Your task to perform on an android device: uninstall "Spotify" Image 0: 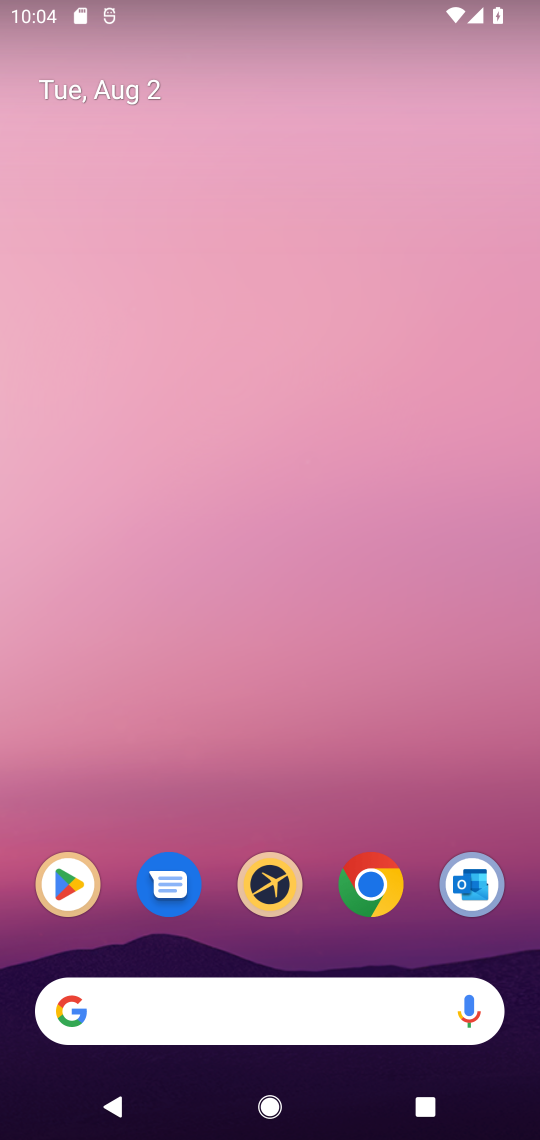
Step 0: click (58, 904)
Your task to perform on an android device: uninstall "Spotify" Image 1: 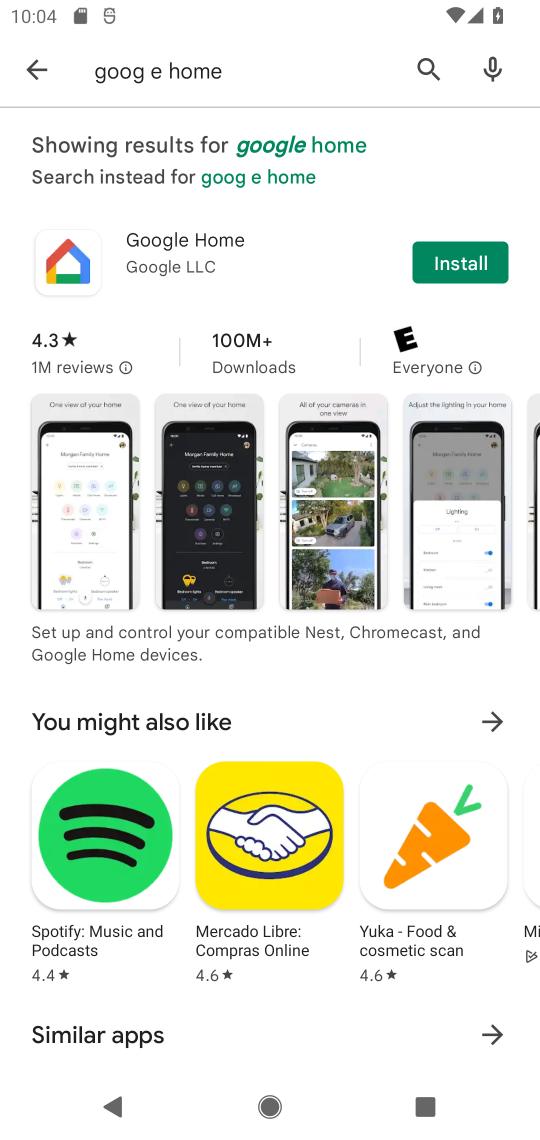
Step 1: click (209, 71)
Your task to perform on an android device: uninstall "Spotify" Image 2: 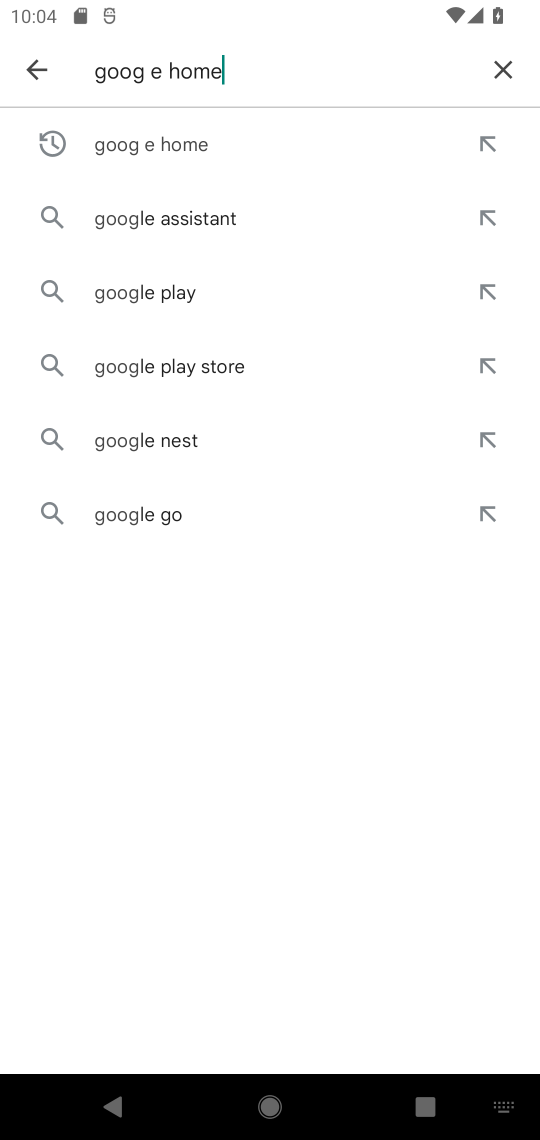
Step 2: click (501, 64)
Your task to perform on an android device: uninstall "Spotify" Image 3: 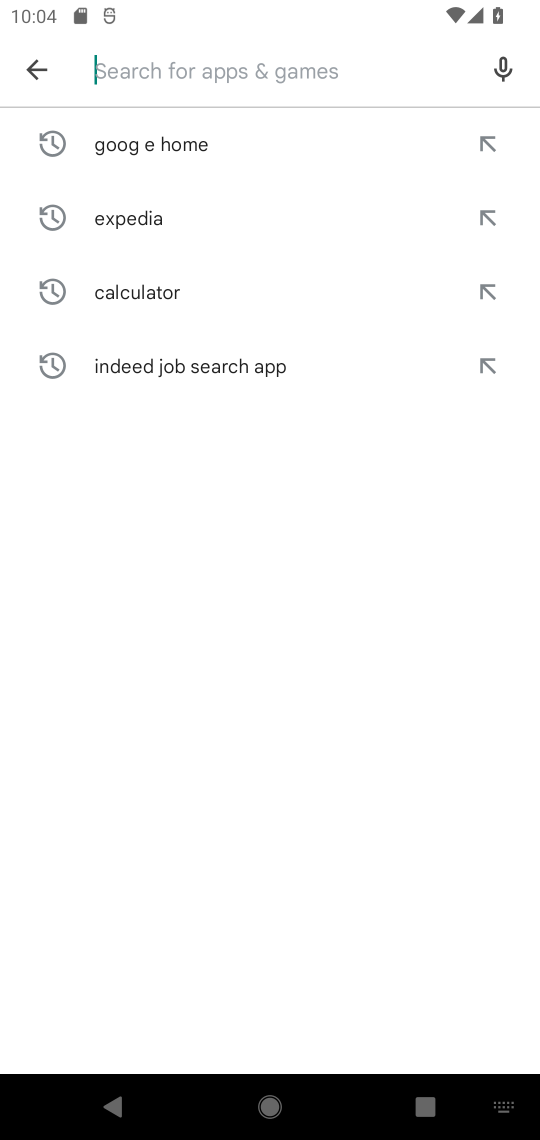
Step 3: type "spotify"
Your task to perform on an android device: uninstall "Spotify" Image 4: 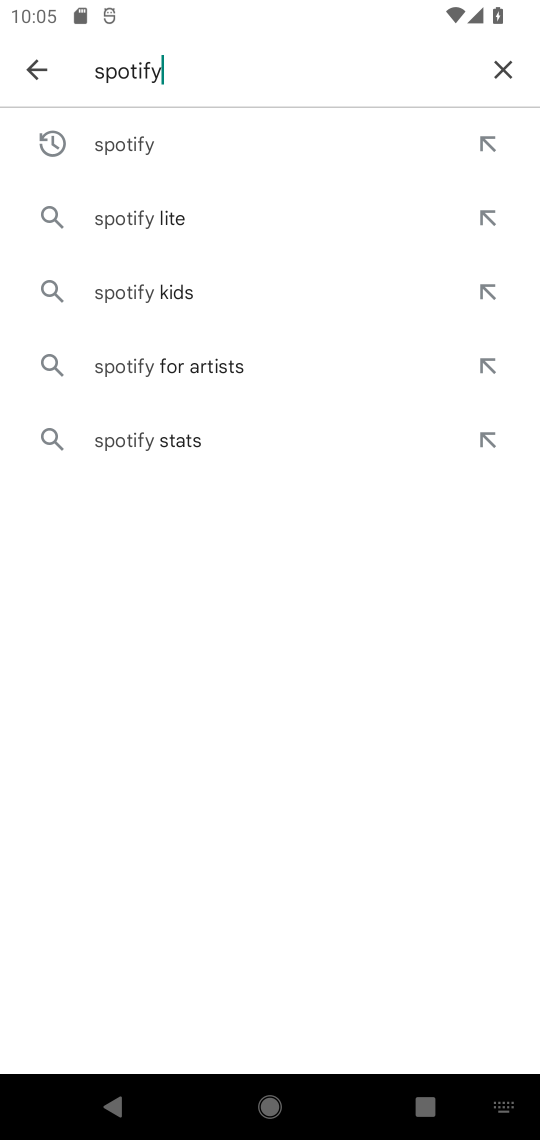
Step 4: click (143, 150)
Your task to perform on an android device: uninstall "Spotify" Image 5: 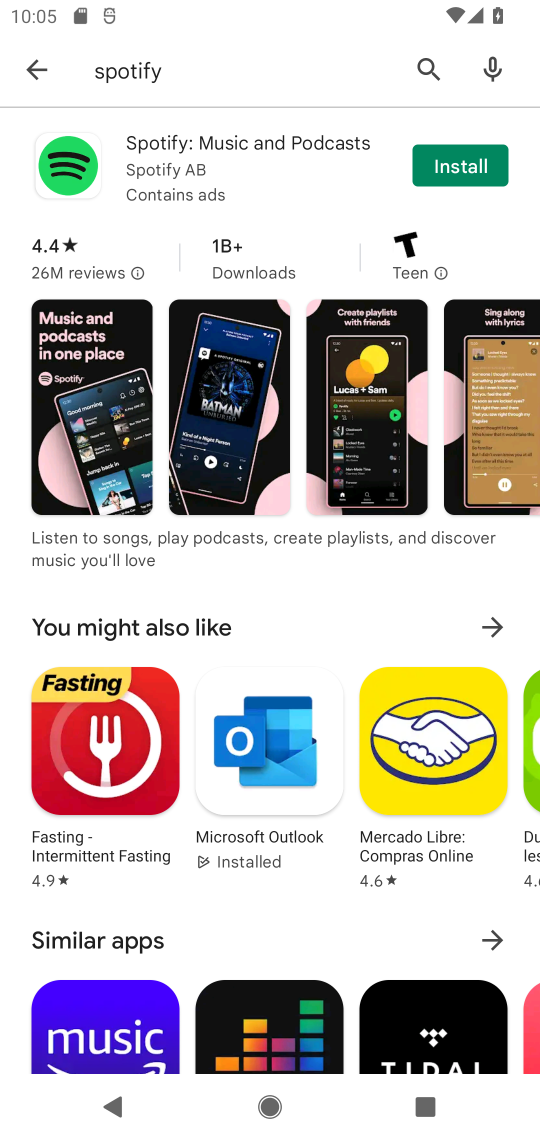
Step 5: task complete